Your task to perform on an android device: open a bookmark in the chrome app Image 0: 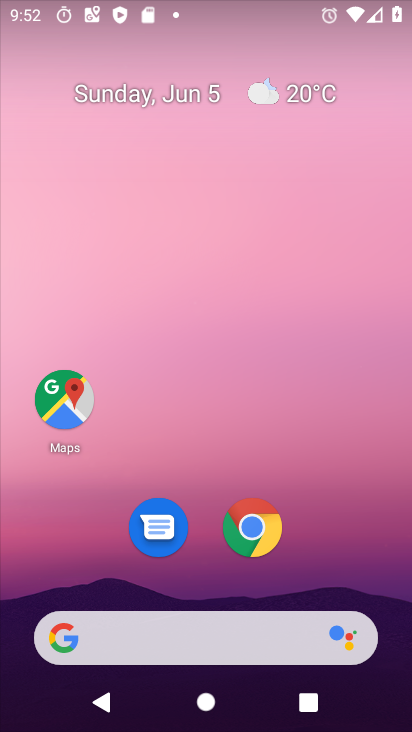
Step 0: drag from (348, 572) to (353, 28)
Your task to perform on an android device: open a bookmark in the chrome app Image 1: 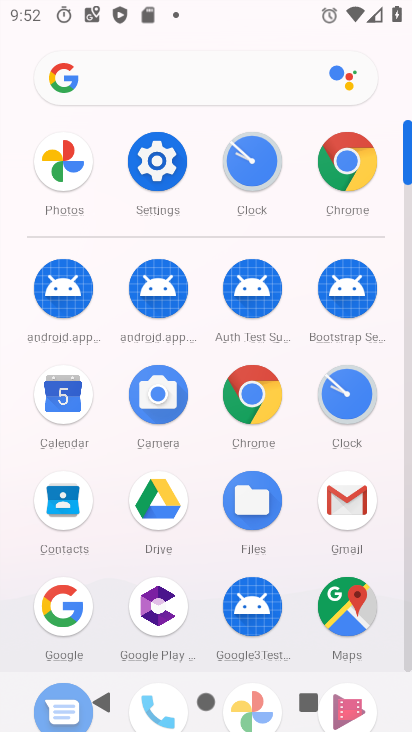
Step 1: click (337, 173)
Your task to perform on an android device: open a bookmark in the chrome app Image 2: 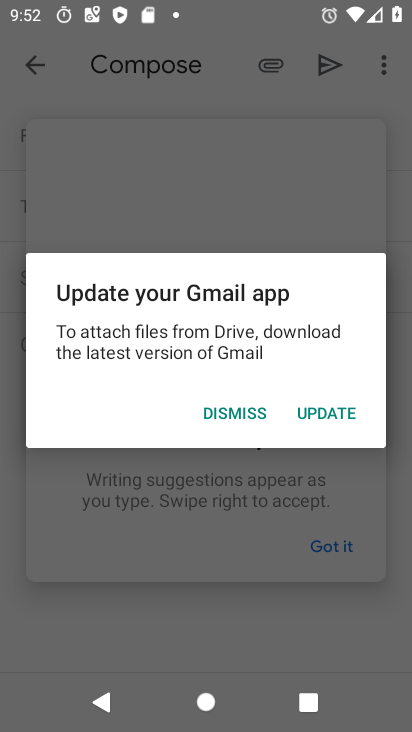
Step 2: press home button
Your task to perform on an android device: open a bookmark in the chrome app Image 3: 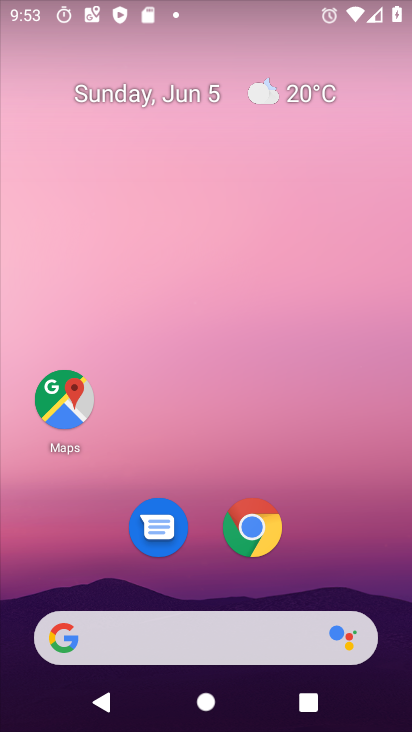
Step 3: drag from (355, 464) to (191, 11)
Your task to perform on an android device: open a bookmark in the chrome app Image 4: 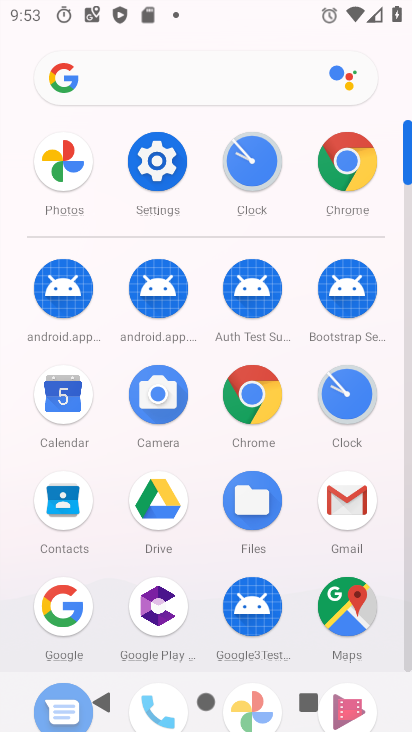
Step 4: click (355, 159)
Your task to perform on an android device: open a bookmark in the chrome app Image 5: 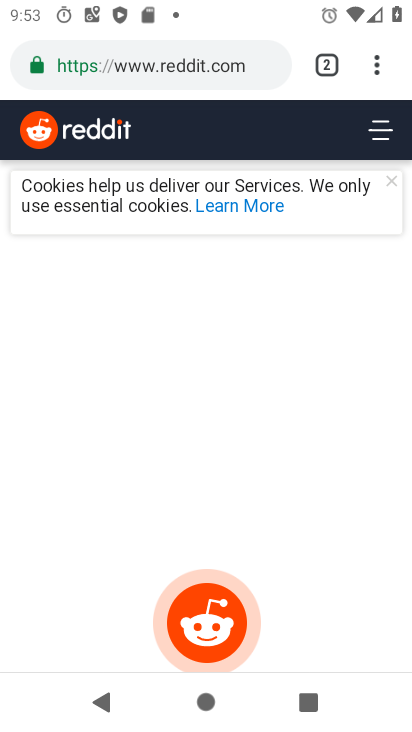
Step 5: task complete